Your task to perform on an android device: Go to privacy settings Image 0: 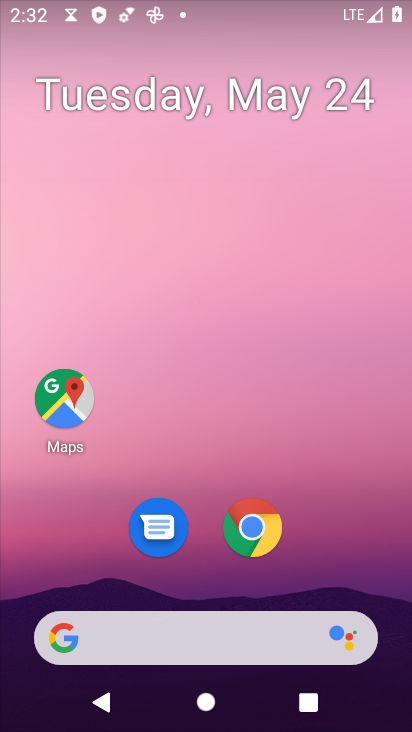
Step 0: press home button
Your task to perform on an android device: Go to privacy settings Image 1: 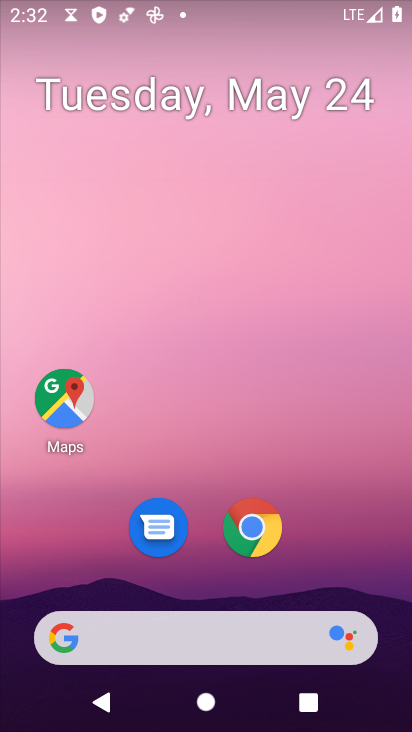
Step 1: drag from (200, 617) to (340, 66)
Your task to perform on an android device: Go to privacy settings Image 2: 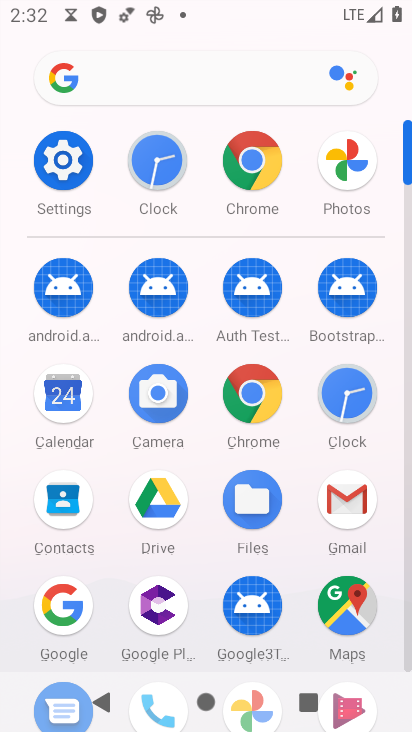
Step 2: click (74, 163)
Your task to perform on an android device: Go to privacy settings Image 3: 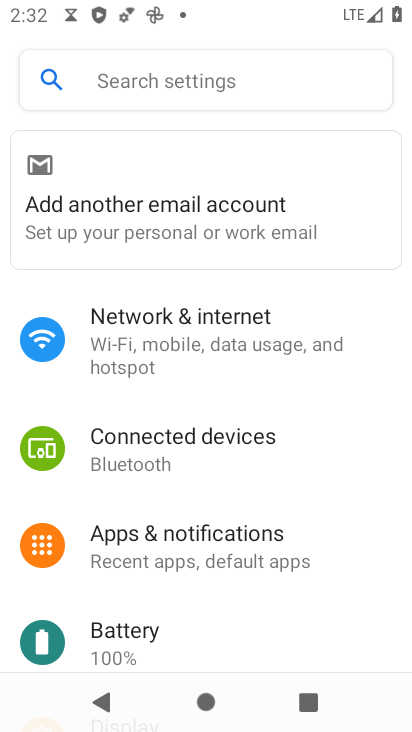
Step 3: drag from (159, 644) to (247, 201)
Your task to perform on an android device: Go to privacy settings Image 4: 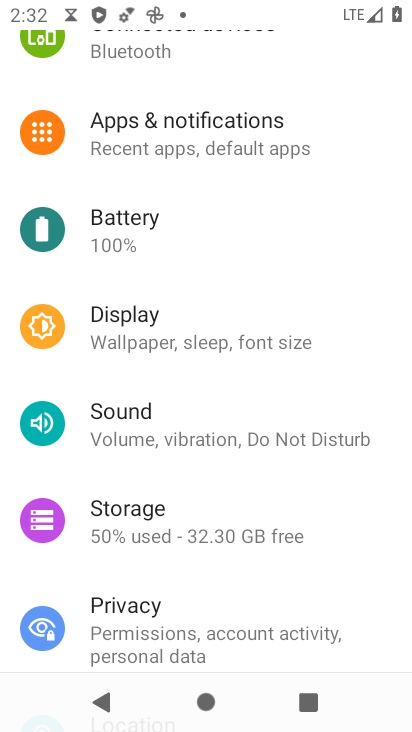
Step 4: click (127, 613)
Your task to perform on an android device: Go to privacy settings Image 5: 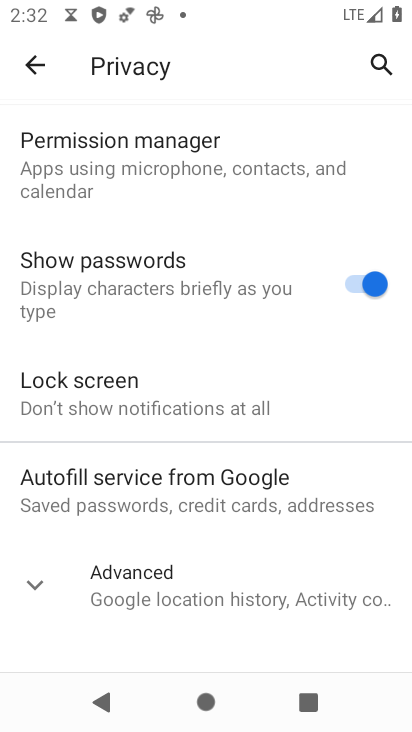
Step 5: task complete